Your task to perform on an android device: turn pop-ups on in chrome Image 0: 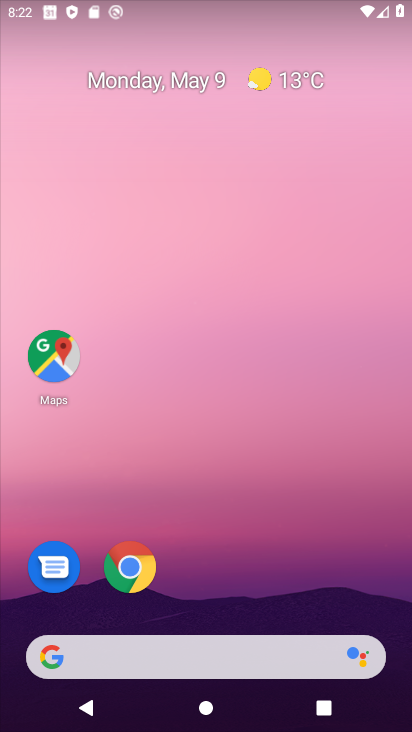
Step 0: click (144, 559)
Your task to perform on an android device: turn pop-ups on in chrome Image 1: 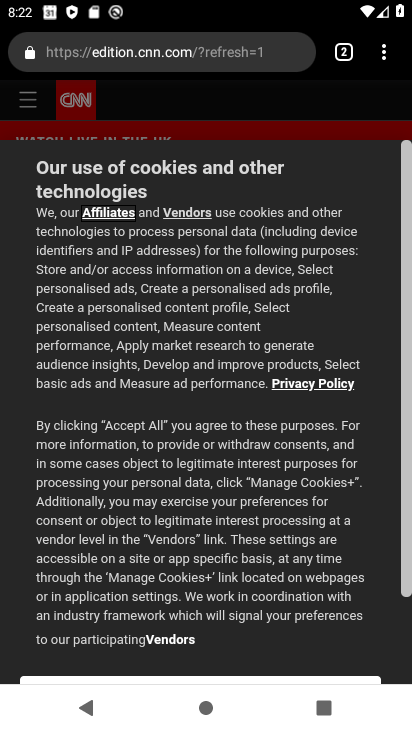
Step 1: click (383, 53)
Your task to perform on an android device: turn pop-ups on in chrome Image 2: 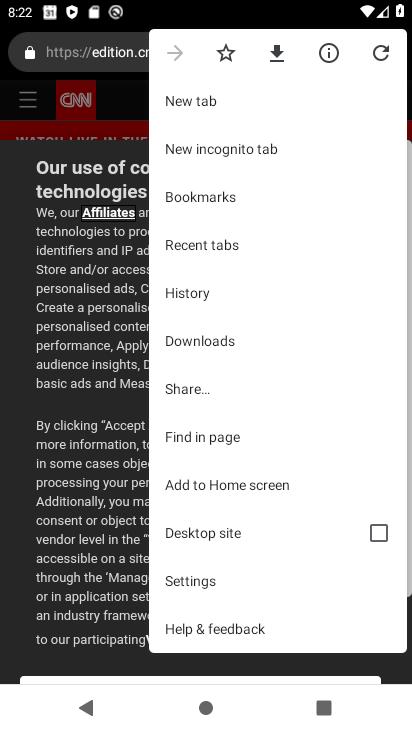
Step 2: click (224, 583)
Your task to perform on an android device: turn pop-ups on in chrome Image 3: 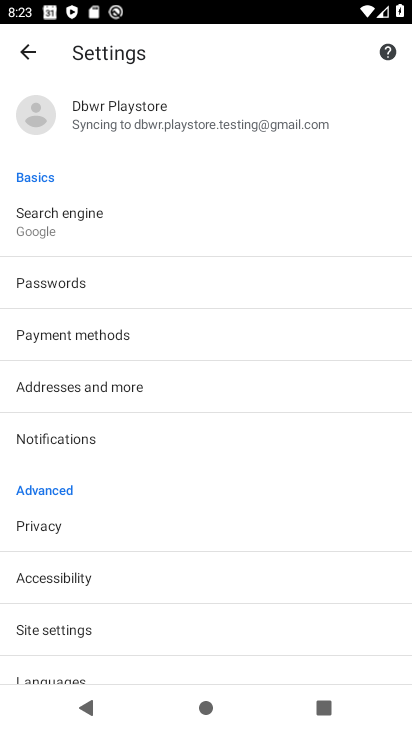
Step 3: click (219, 627)
Your task to perform on an android device: turn pop-ups on in chrome Image 4: 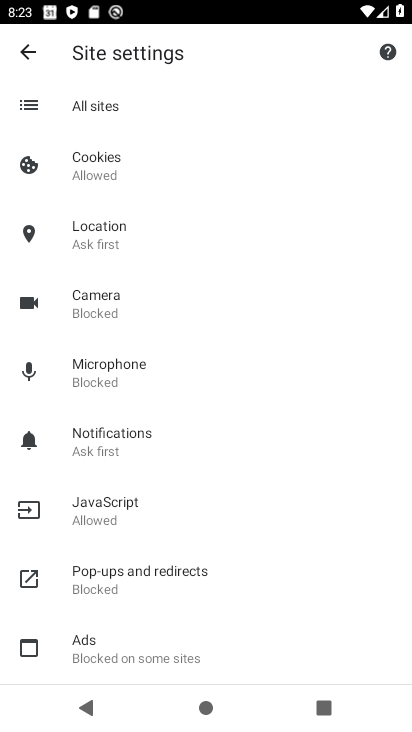
Step 4: click (232, 599)
Your task to perform on an android device: turn pop-ups on in chrome Image 5: 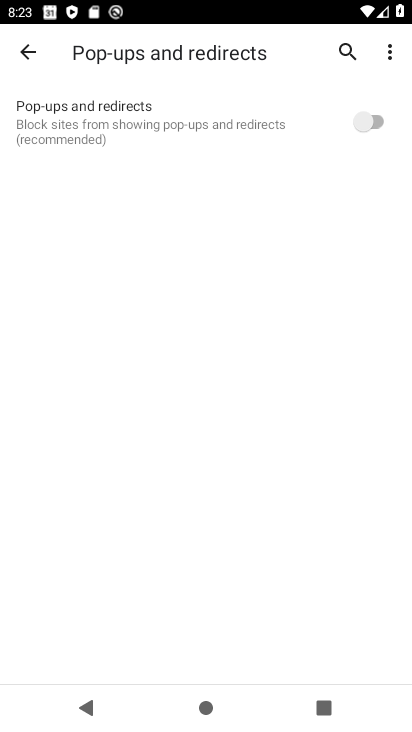
Step 5: click (366, 117)
Your task to perform on an android device: turn pop-ups on in chrome Image 6: 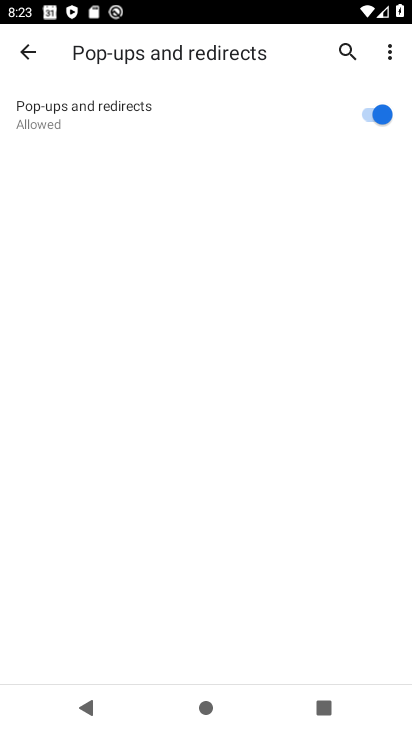
Step 6: task complete